Your task to perform on an android device: find photos in the google photos app Image 0: 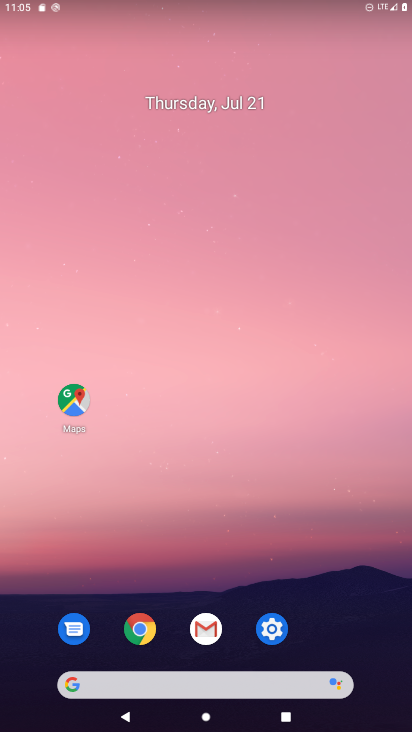
Step 0: press home button
Your task to perform on an android device: find photos in the google photos app Image 1: 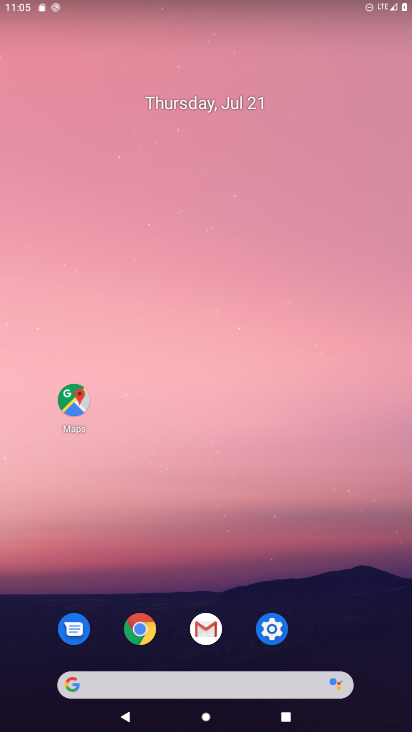
Step 1: drag from (316, 689) to (233, 0)
Your task to perform on an android device: find photos in the google photos app Image 2: 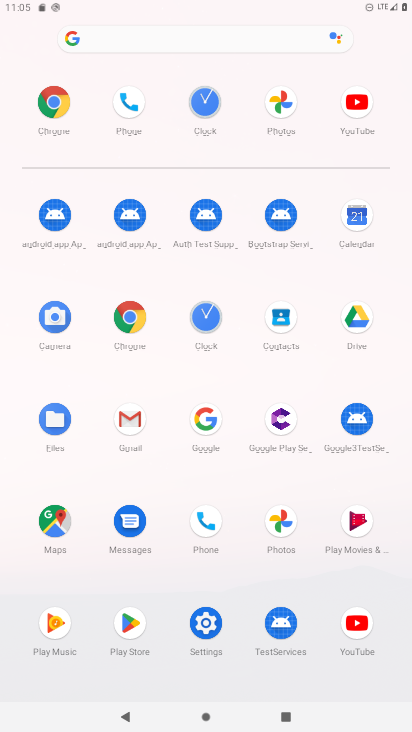
Step 2: click (286, 524)
Your task to perform on an android device: find photos in the google photos app Image 3: 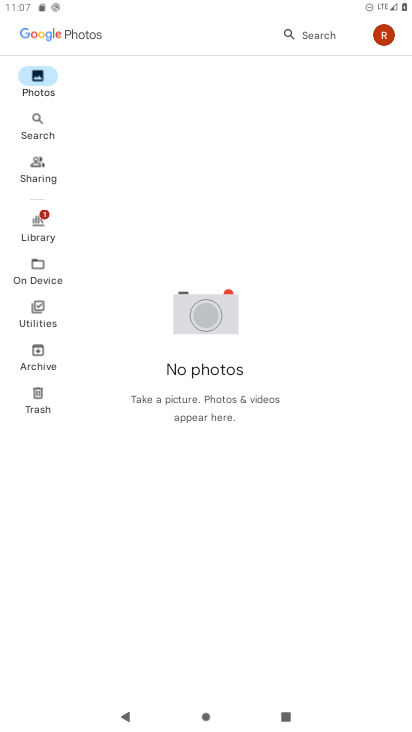
Step 3: task complete